Your task to perform on an android device: clear history in the chrome app Image 0: 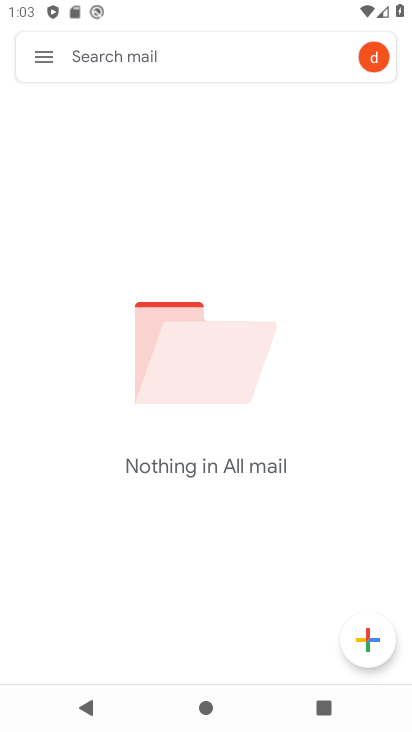
Step 0: press home button
Your task to perform on an android device: clear history in the chrome app Image 1: 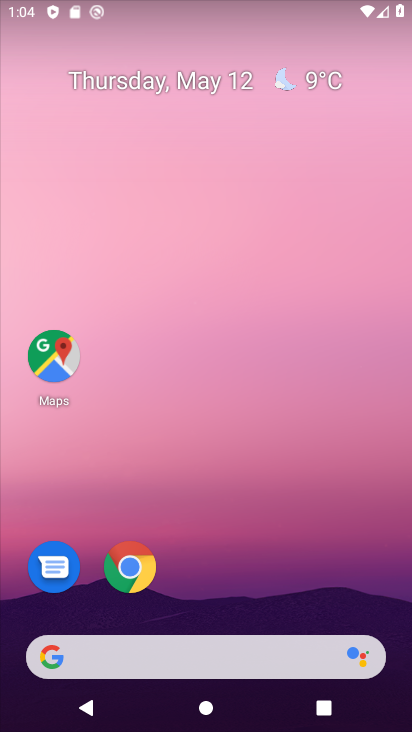
Step 1: click (127, 564)
Your task to perform on an android device: clear history in the chrome app Image 2: 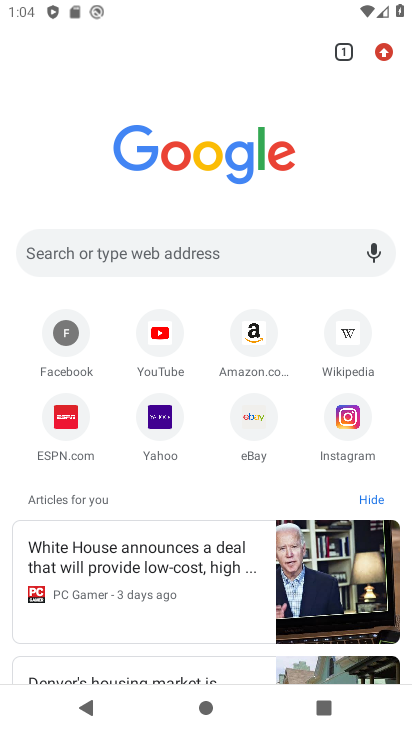
Step 2: click (385, 51)
Your task to perform on an android device: clear history in the chrome app Image 3: 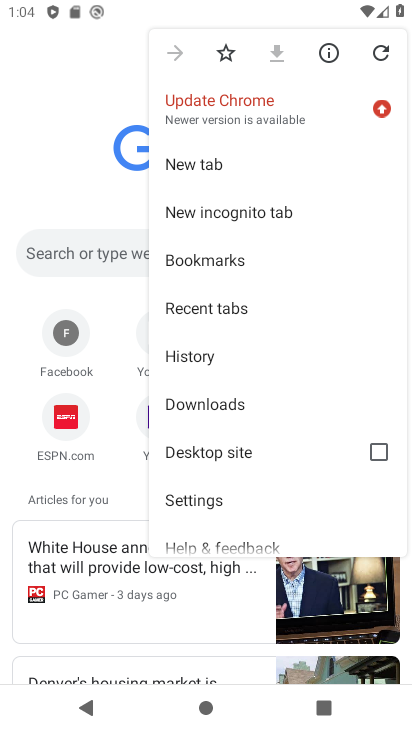
Step 3: click (222, 355)
Your task to perform on an android device: clear history in the chrome app Image 4: 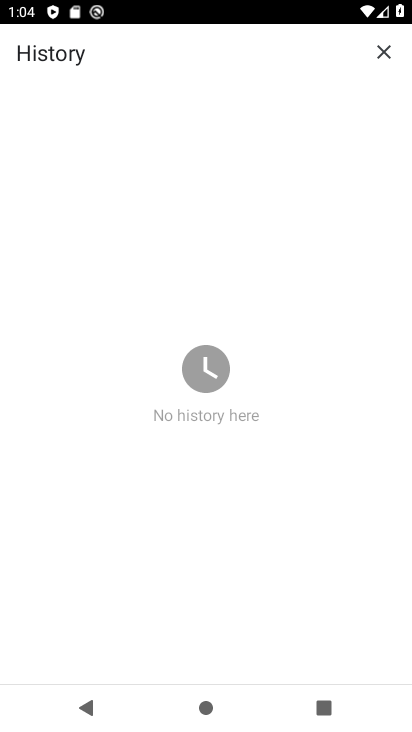
Step 4: click (384, 54)
Your task to perform on an android device: clear history in the chrome app Image 5: 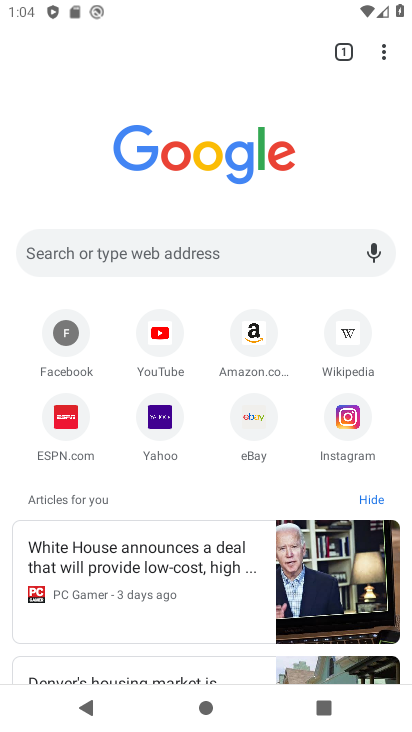
Step 5: task complete